Your task to perform on an android device: Go to Android settings Image 0: 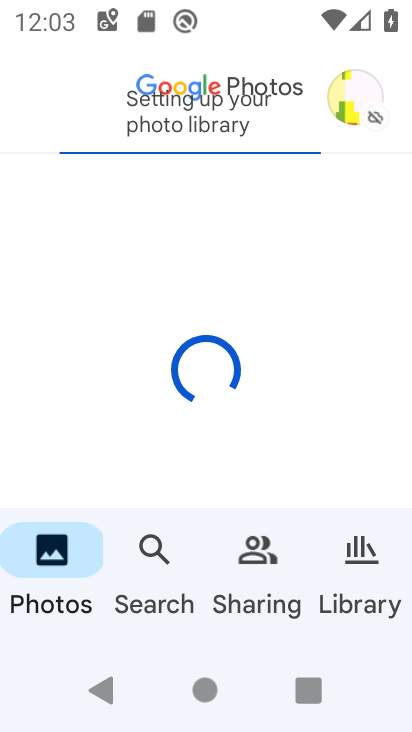
Step 0: press home button
Your task to perform on an android device: Go to Android settings Image 1: 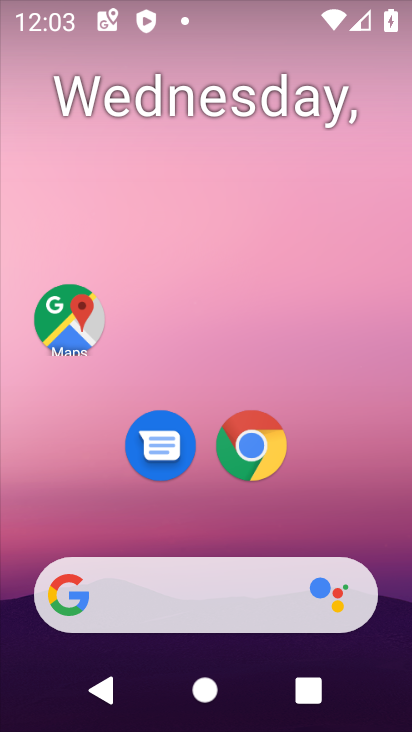
Step 1: drag from (357, 497) to (358, 132)
Your task to perform on an android device: Go to Android settings Image 2: 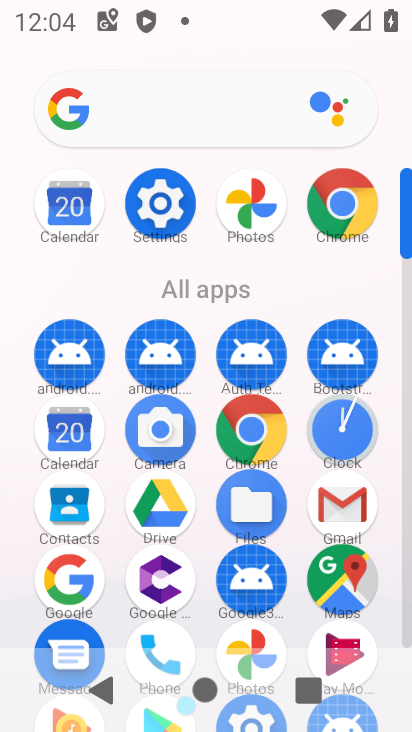
Step 2: click (155, 186)
Your task to perform on an android device: Go to Android settings Image 3: 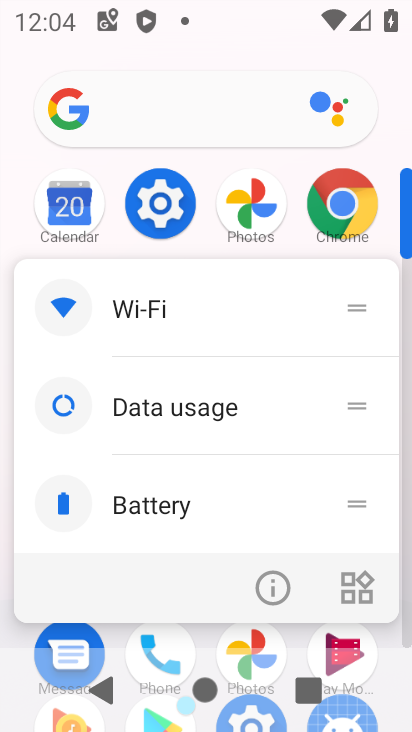
Step 3: click (169, 211)
Your task to perform on an android device: Go to Android settings Image 4: 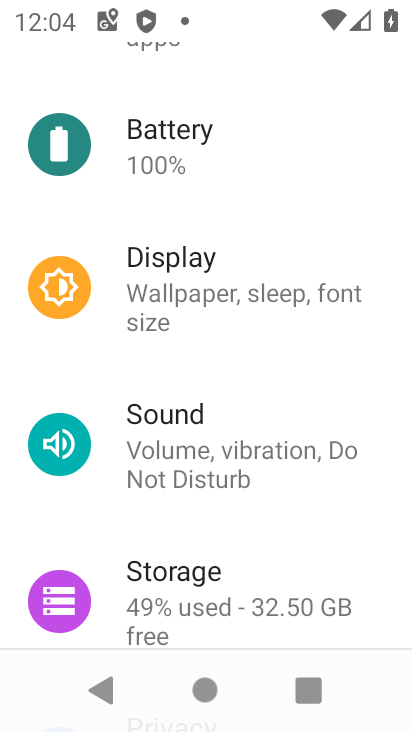
Step 4: task complete